Your task to perform on an android device: open the mobile data screen to see how much data has been used Image 0: 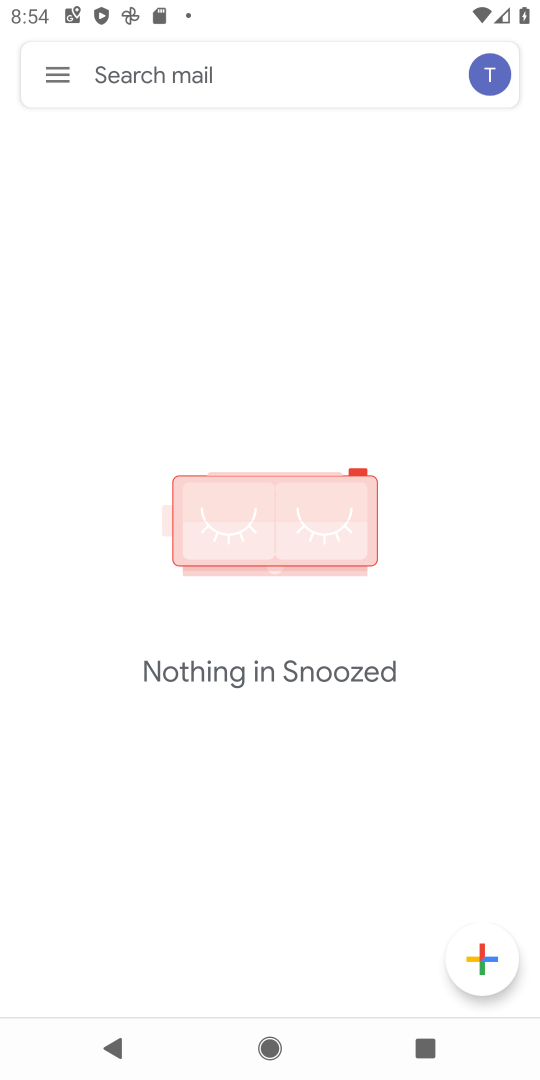
Step 0: press home button
Your task to perform on an android device: open the mobile data screen to see how much data has been used Image 1: 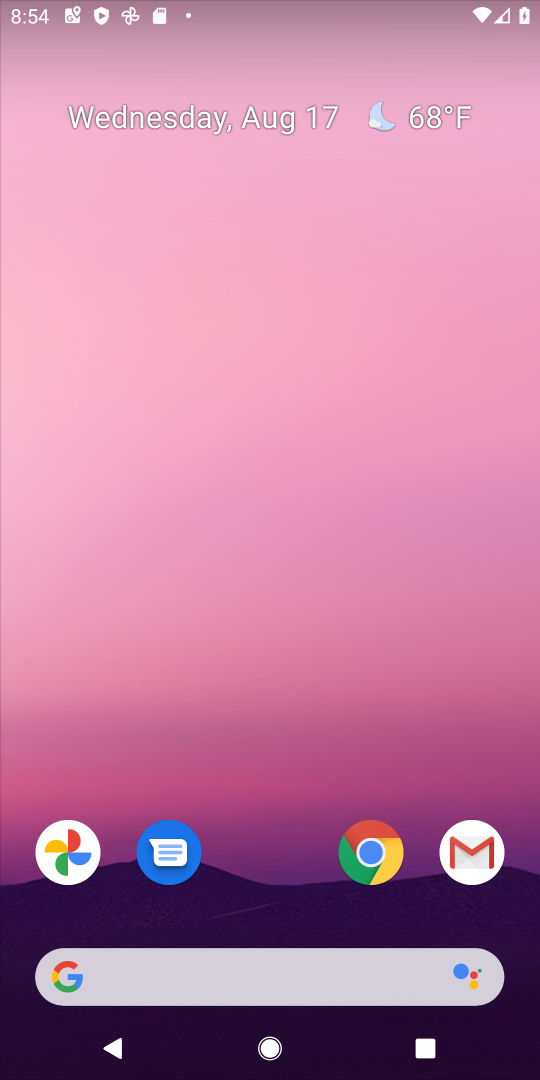
Step 1: drag from (269, 903) to (185, 87)
Your task to perform on an android device: open the mobile data screen to see how much data has been used Image 2: 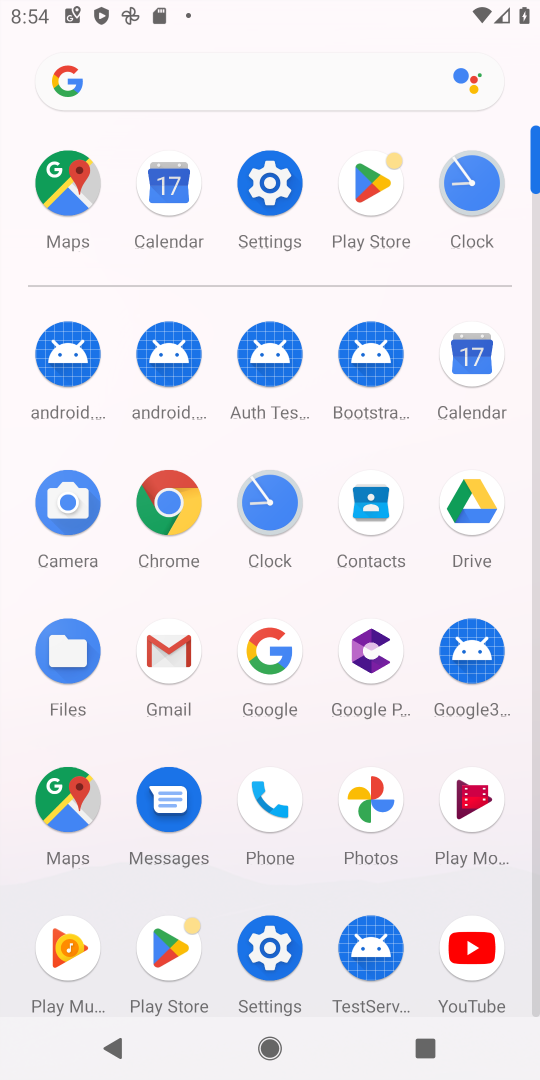
Step 2: click (268, 180)
Your task to perform on an android device: open the mobile data screen to see how much data has been used Image 3: 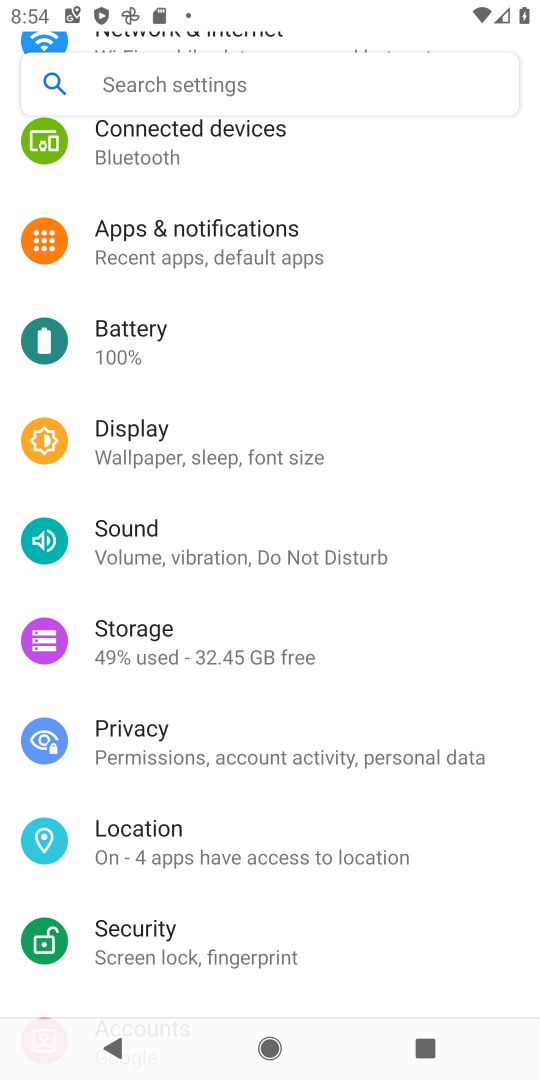
Step 3: drag from (268, 180) to (306, 533)
Your task to perform on an android device: open the mobile data screen to see how much data has been used Image 4: 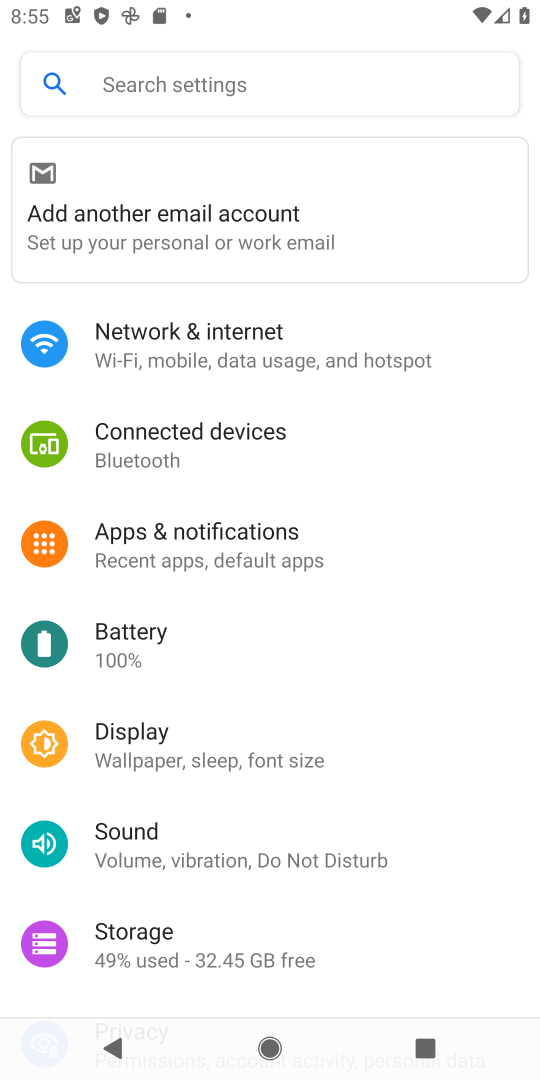
Step 4: click (201, 346)
Your task to perform on an android device: open the mobile data screen to see how much data has been used Image 5: 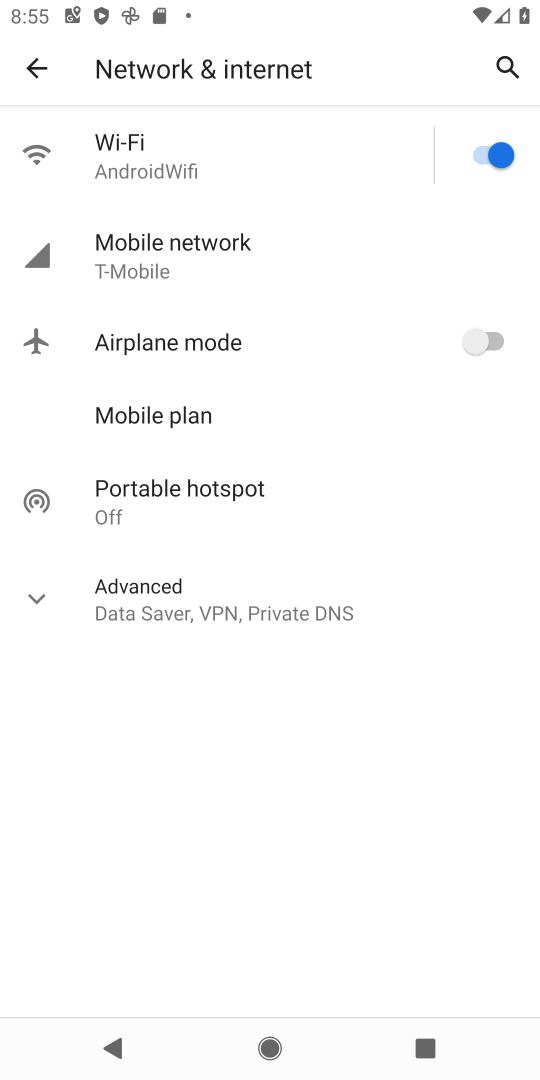
Step 5: click (166, 236)
Your task to perform on an android device: open the mobile data screen to see how much data has been used Image 6: 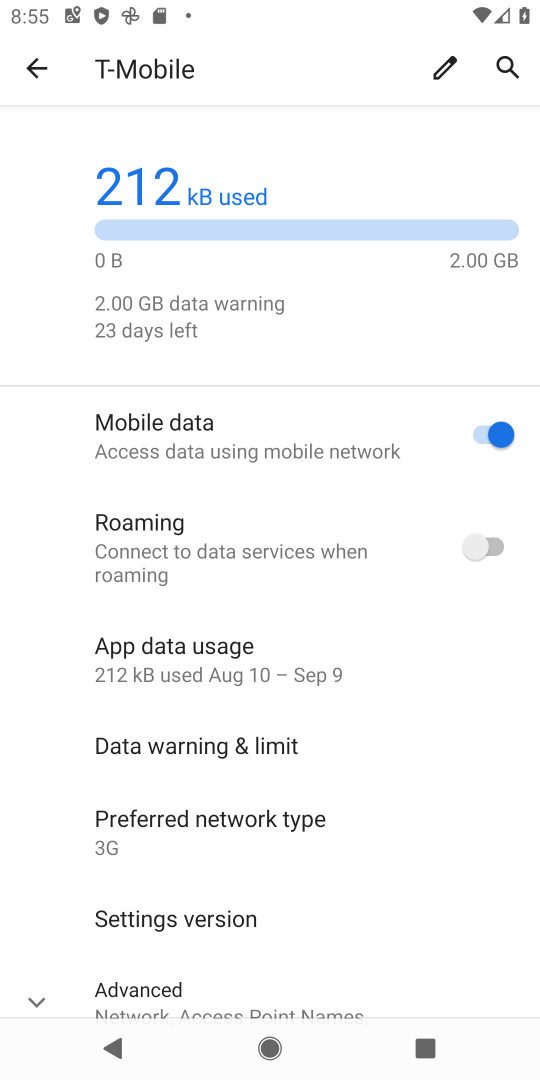
Step 6: task complete